Your task to perform on an android device: Clear all items from cart on ebay. Add razer blade to the cart on ebay, then select checkout. Image 0: 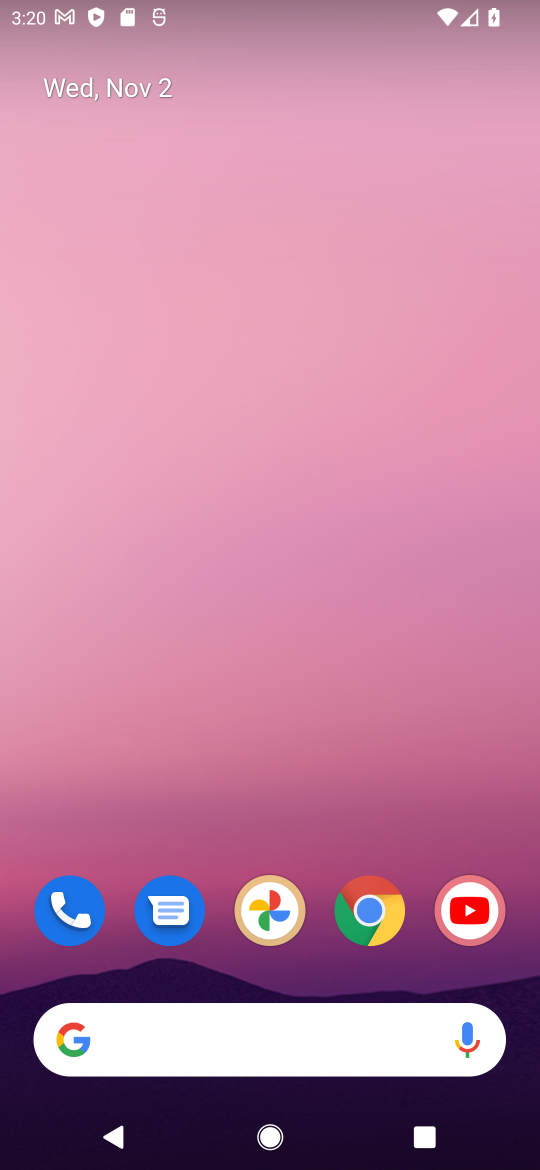
Step 0: click (374, 913)
Your task to perform on an android device: Clear all items from cart on ebay. Add razer blade to the cart on ebay, then select checkout. Image 1: 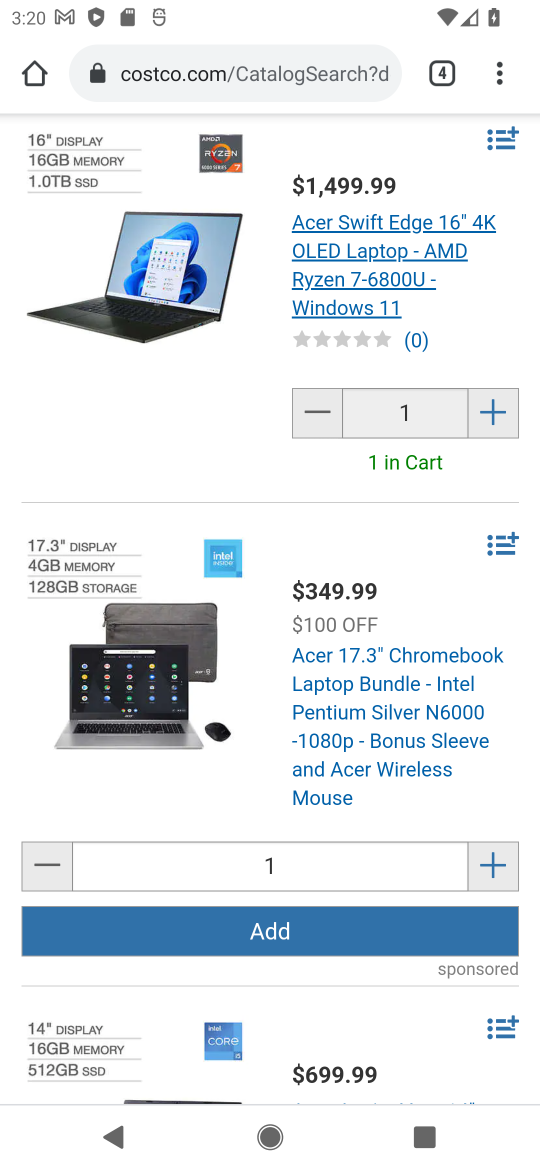
Step 1: click (441, 68)
Your task to perform on an android device: Clear all items from cart on ebay. Add razer blade to the cart on ebay, then select checkout. Image 2: 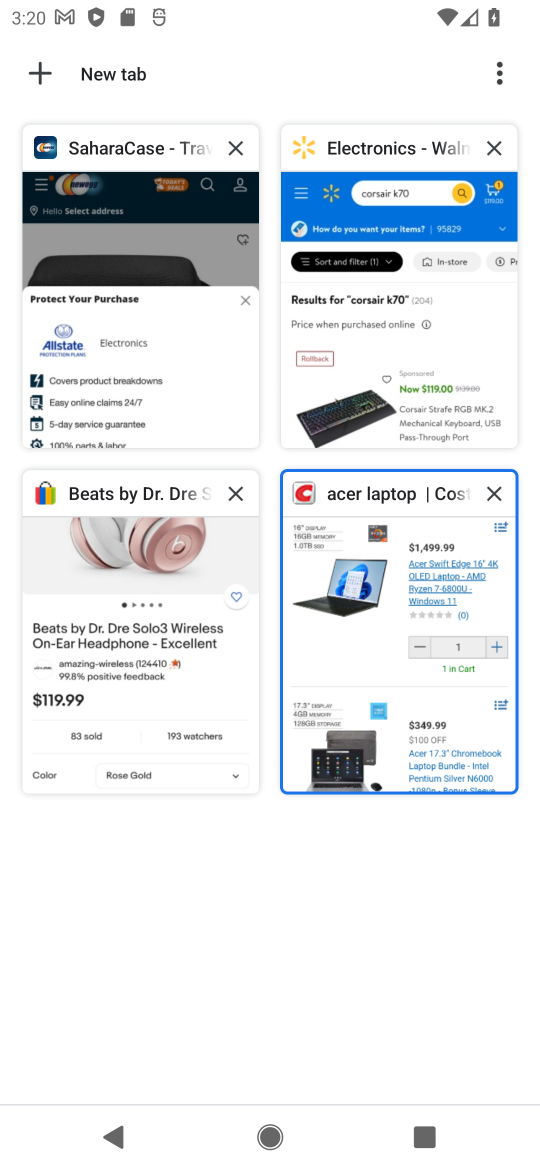
Step 2: click (154, 639)
Your task to perform on an android device: Clear all items from cart on ebay. Add razer blade to the cart on ebay, then select checkout. Image 3: 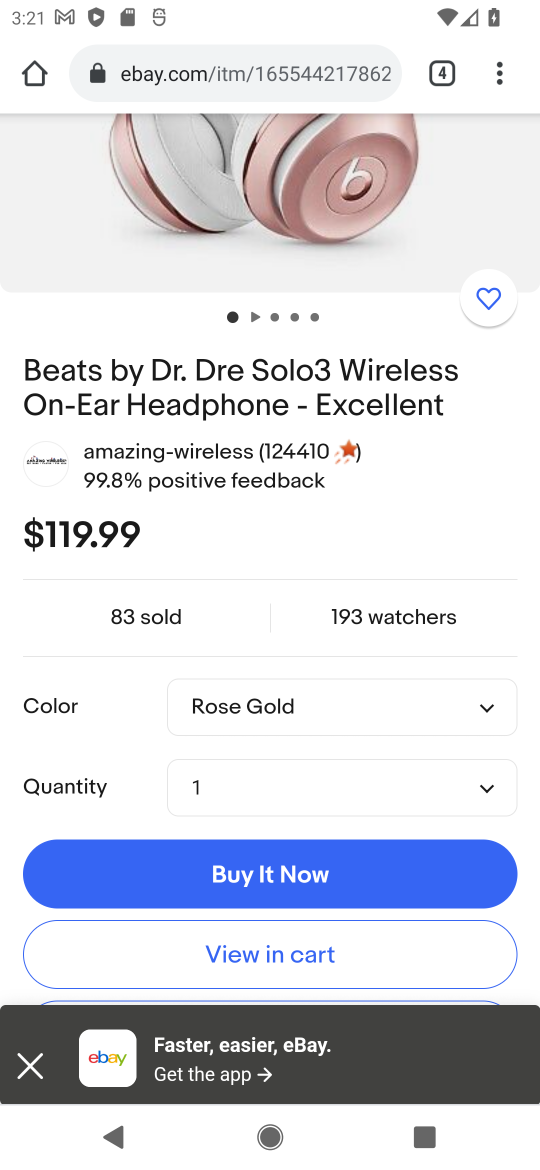
Step 3: click (326, 951)
Your task to perform on an android device: Clear all items from cart on ebay. Add razer blade to the cart on ebay, then select checkout. Image 4: 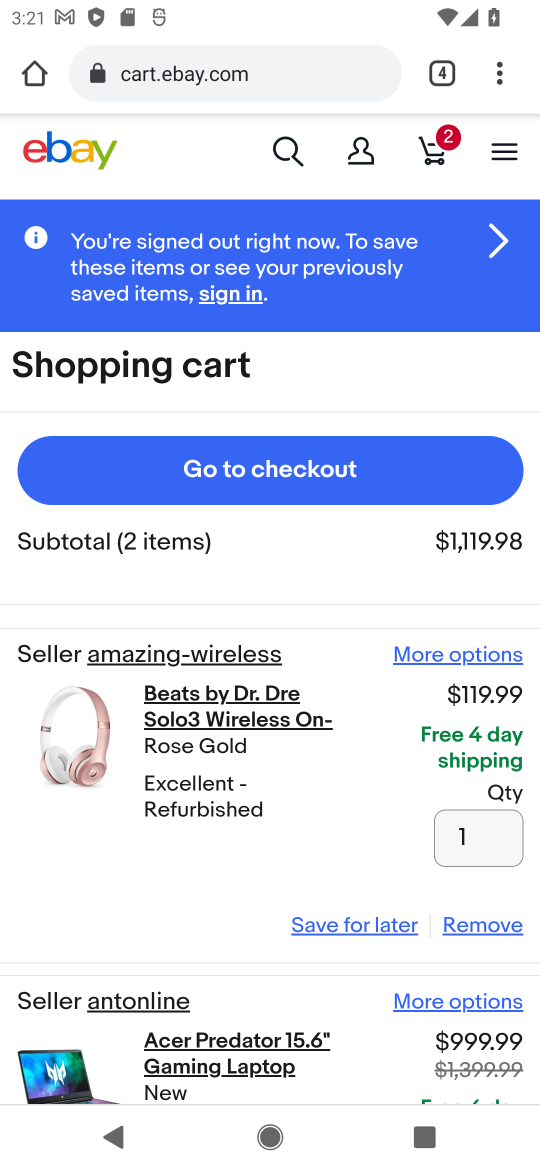
Step 4: click (463, 921)
Your task to perform on an android device: Clear all items from cart on ebay. Add razer blade to the cart on ebay, then select checkout. Image 5: 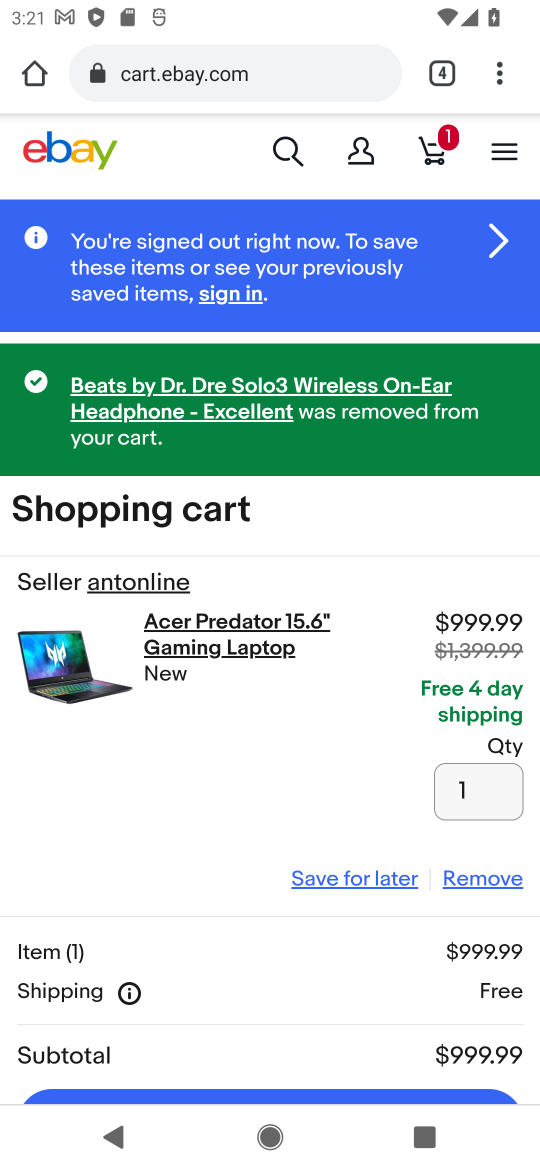
Step 5: click (488, 876)
Your task to perform on an android device: Clear all items from cart on ebay. Add razer blade to the cart on ebay, then select checkout. Image 6: 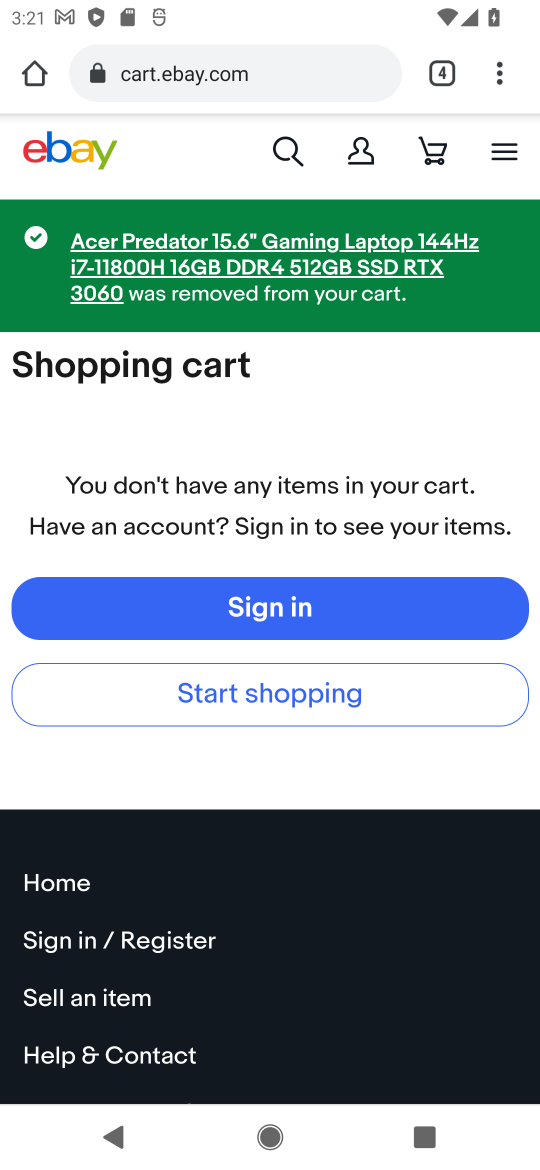
Step 6: click (286, 158)
Your task to perform on an android device: Clear all items from cart on ebay. Add razer blade to the cart on ebay, then select checkout. Image 7: 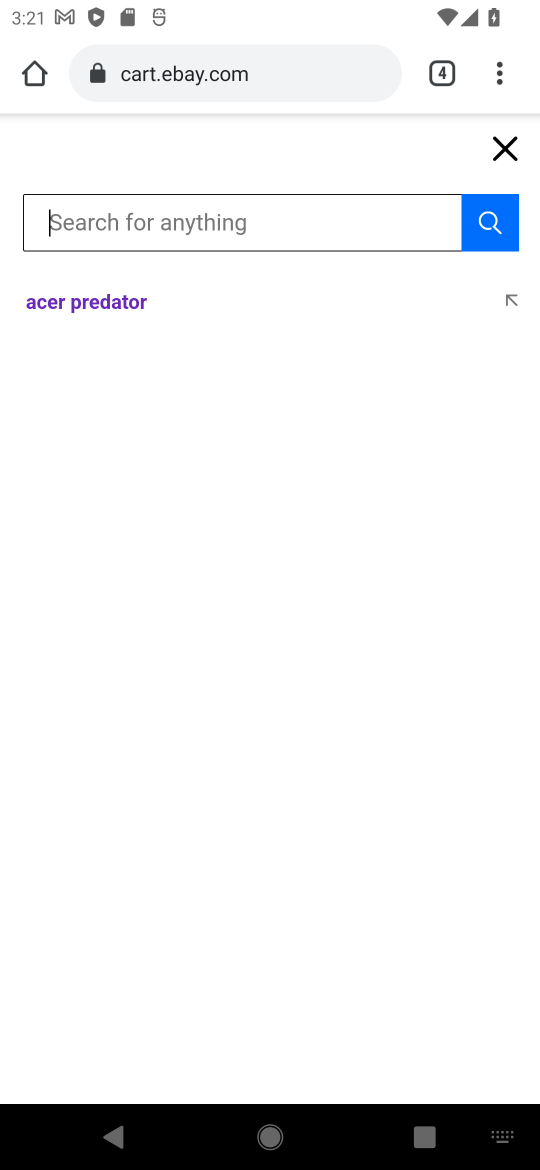
Step 7: type "razer blade"
Your task to perform on an android device: Clear all items from cart on ebay. Add razer blade to the cart on ebay, then select checkout. Image 8: 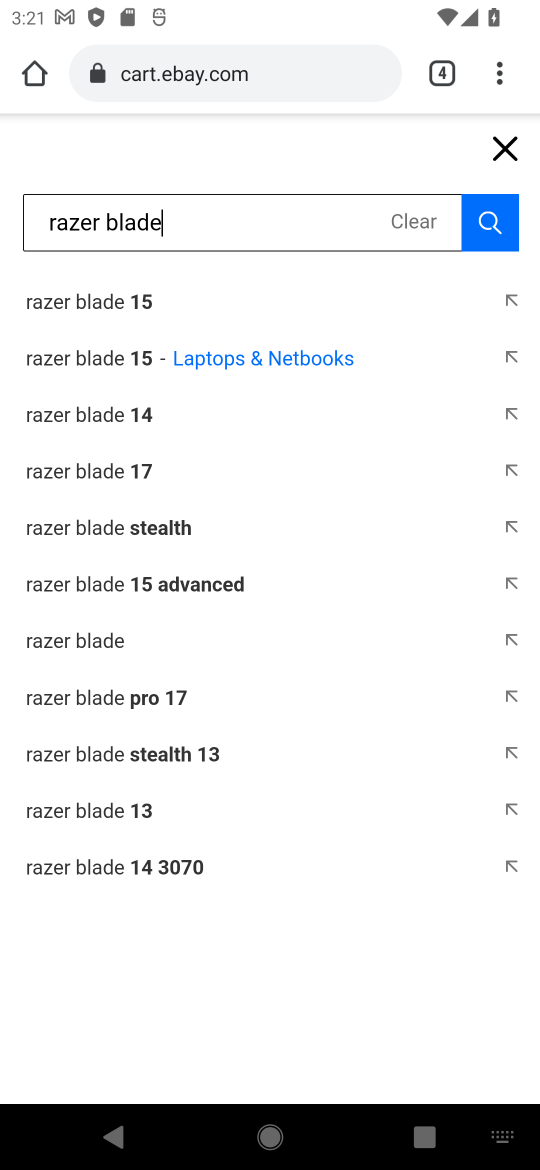
Step 8: click (109, 360)
Your task to perform on an android device: Clear all items from cart on ebay. Add razer blade to the cart on ebay, then select checkout. Image 9: 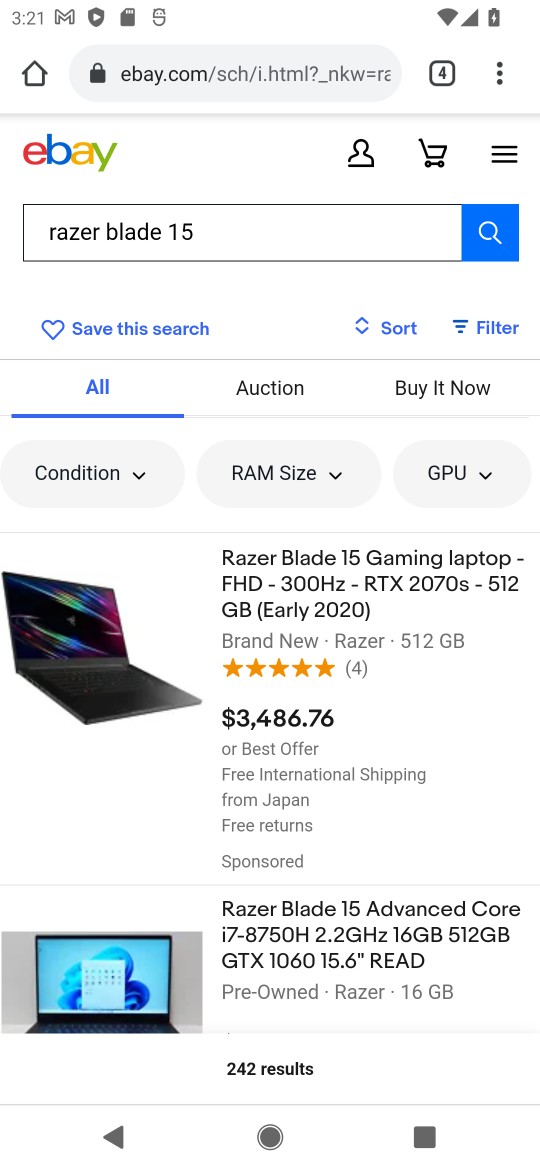
Step 9: click (381, 604)
Your task to perform on an android device: Clear all items from cart on ebay. Add razer blade to the cart on ebay, then select checkout. Image 10: 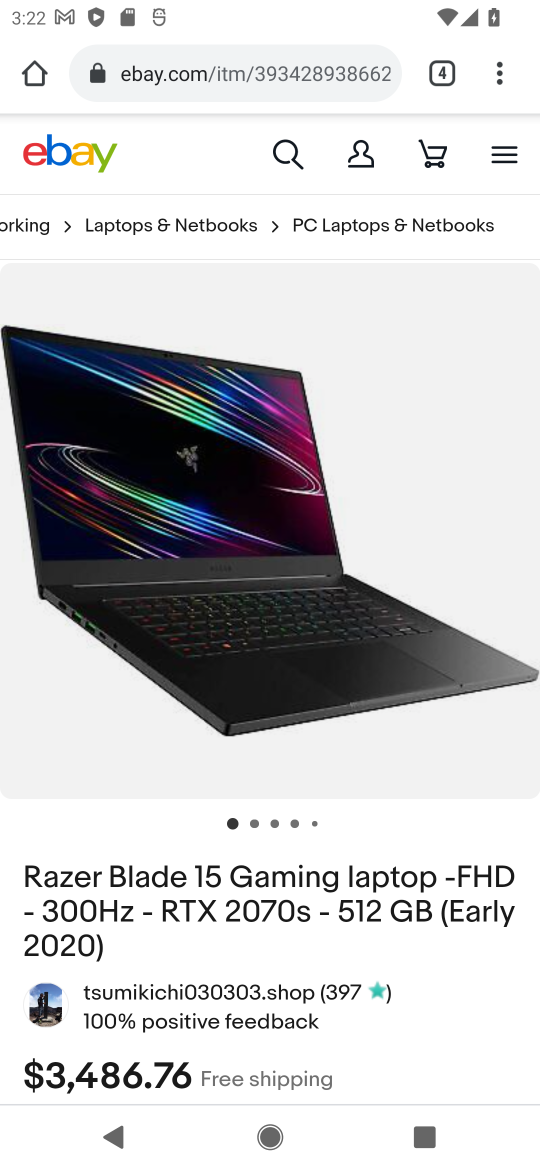
Step 10: drag from (422, 984) to (370, 138)
Your task to perform on an android device: Clear all items from cart on ebay. Add razer blade to the cart on ebay, then select checkout. Image 11: 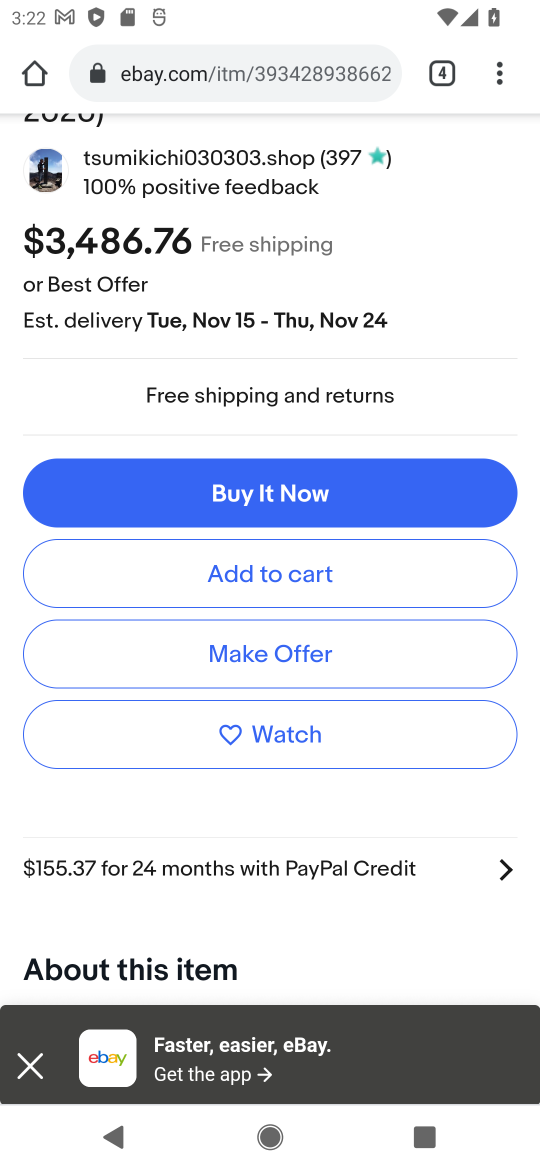
Step 11: click (245, 570)
Your task to perform on an android device: Clear all items from cart on ebay. Add razer blade to the cart on ebay, then select checkout. Image 12: 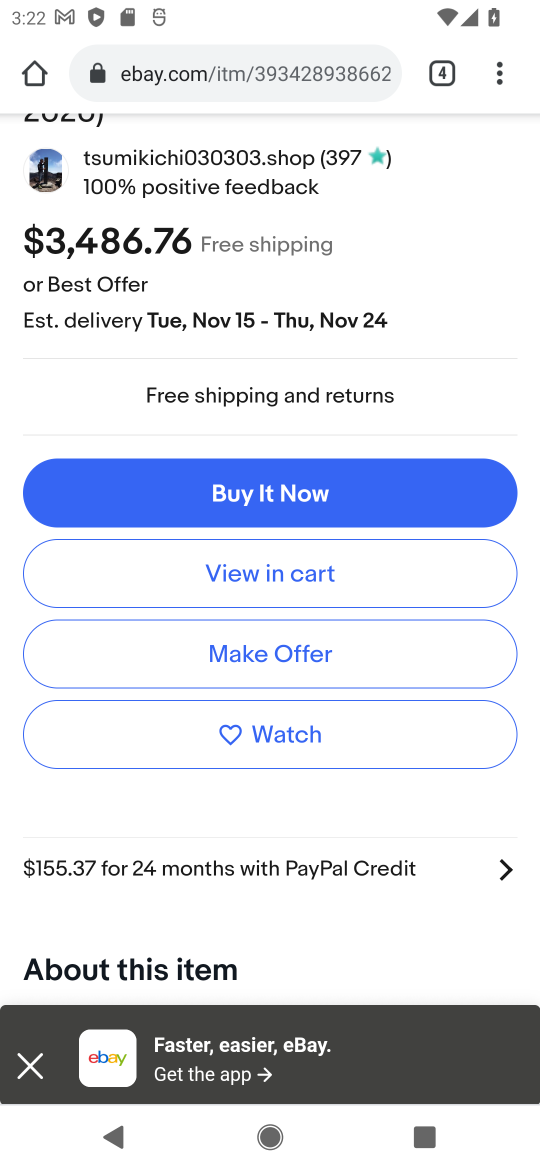
Step 12: click (30, 1064)
Your task to perform on an android device: Clear all items from cart on ebay. Add razer blade to the cart on ebay, then select checkout. Image 13: 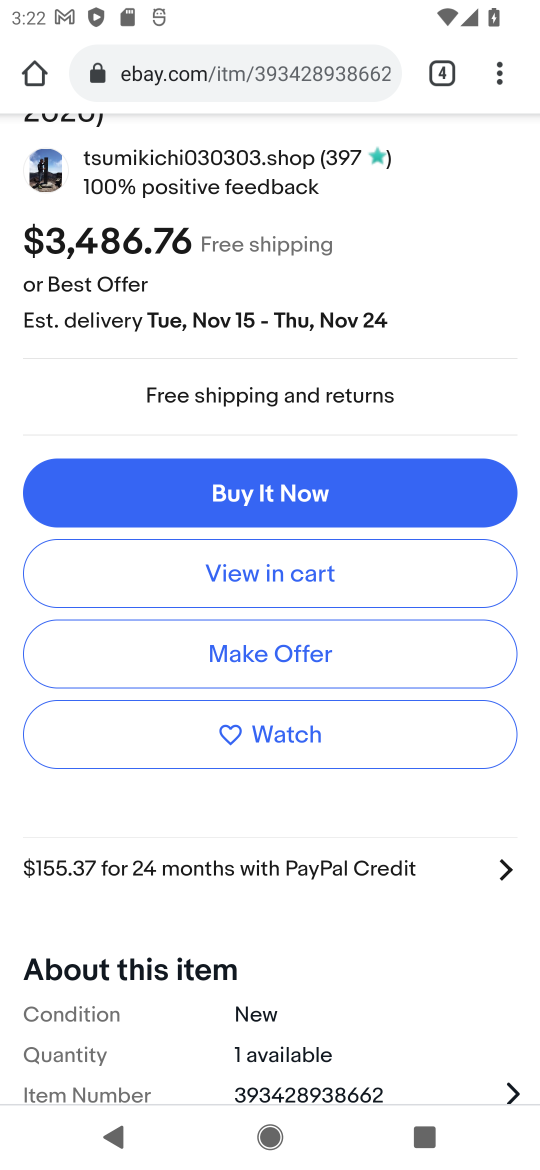
Step 13: click (260, 579)
Your task to perform on an android device: Clear all items from cart on ebay. Add razer blade to the cart on ebay, then select checkout. Image 14: 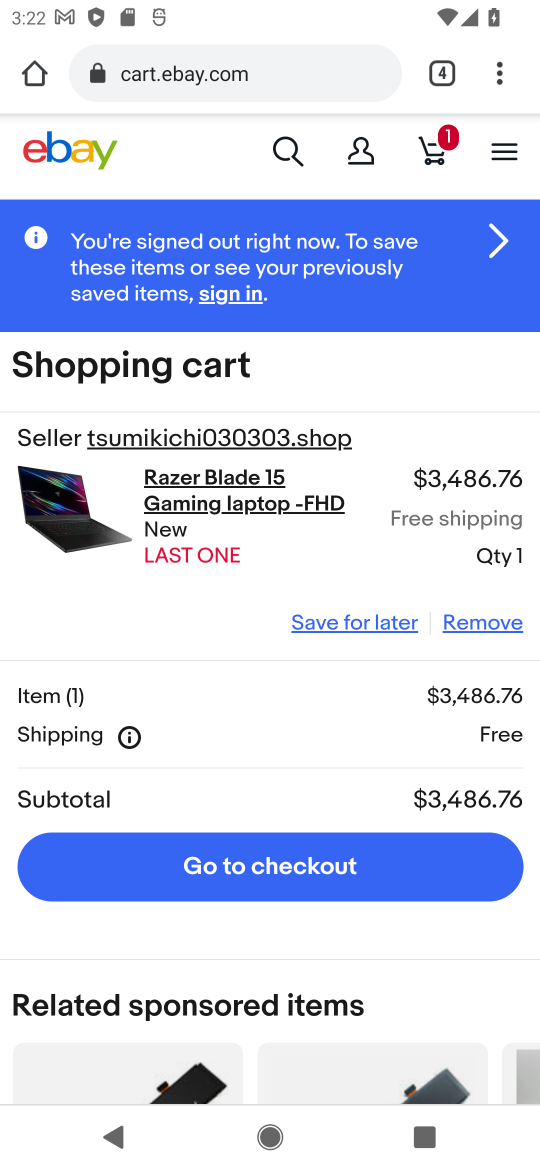
Step 14: click (328, 867)
Your task to perform on an android device: Clear all items from cart on ebay. Add razer blade to the cart on ebay, then select checkout. Image 15: 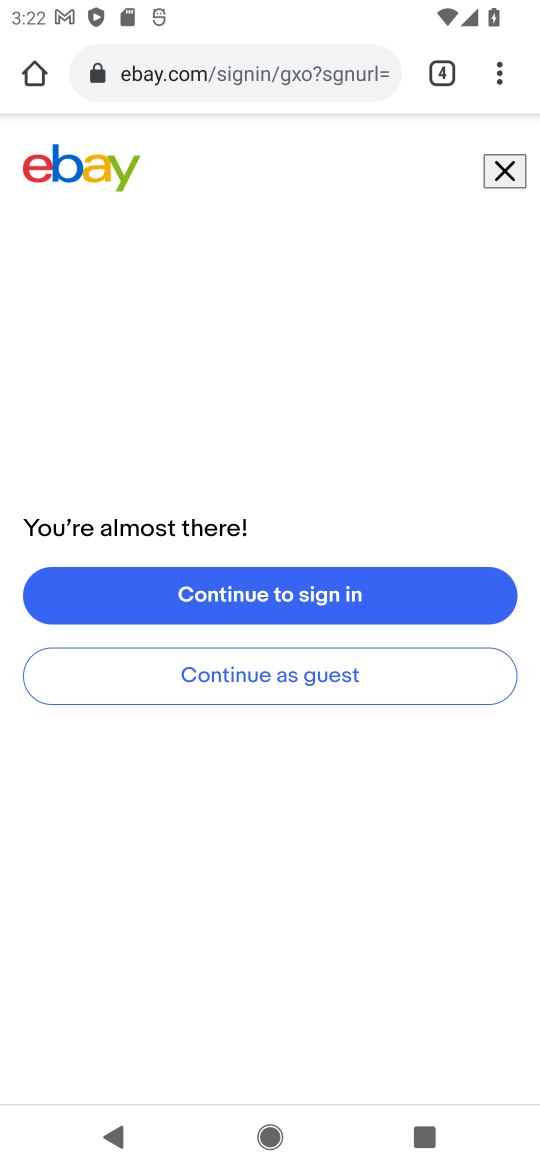
Step 15: task complete